Your task to perform on an android device: open app "Facebook" Image 0: 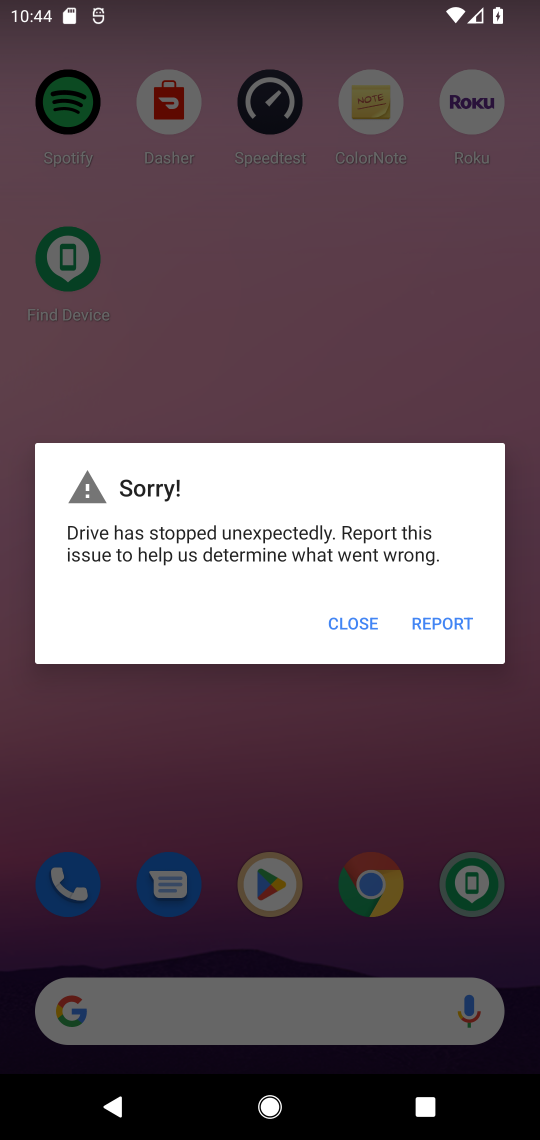
Step 0: press home button
Your task to perform on an android device: open app "Facebook" Image 1: 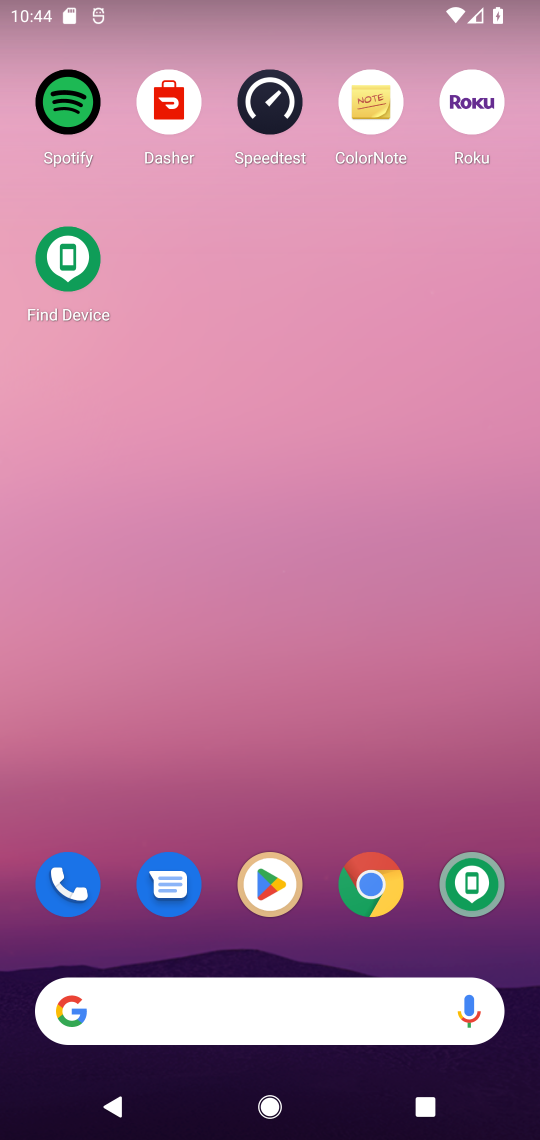
Step 1: click (265, 879)
Your task to perform on an android device: open app "Facebook" Image 2: 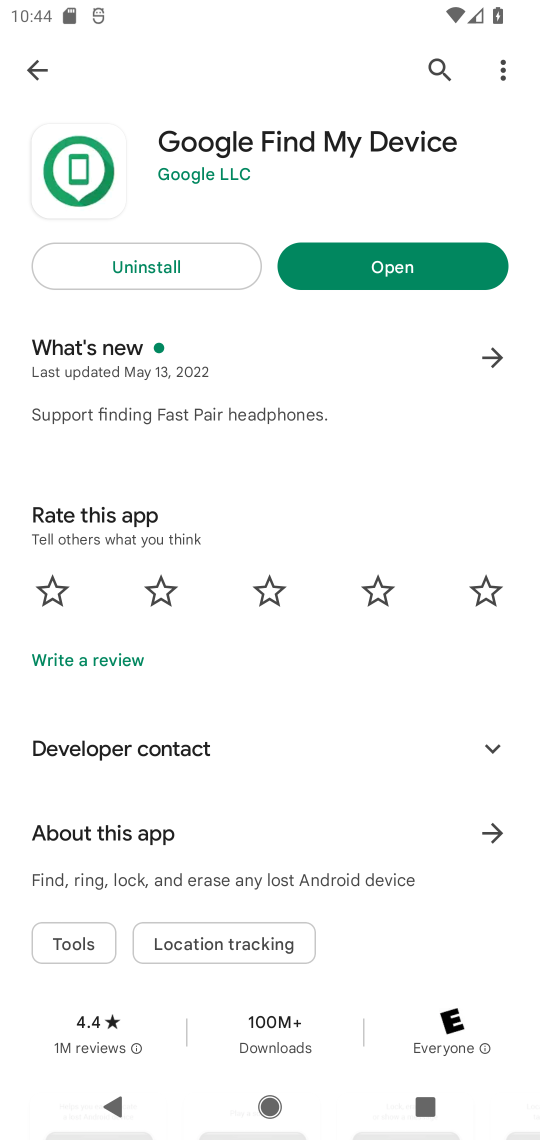
Step 2: click (436, 61)
Your task to perform on an android device: open app "Facebook" Image 3: 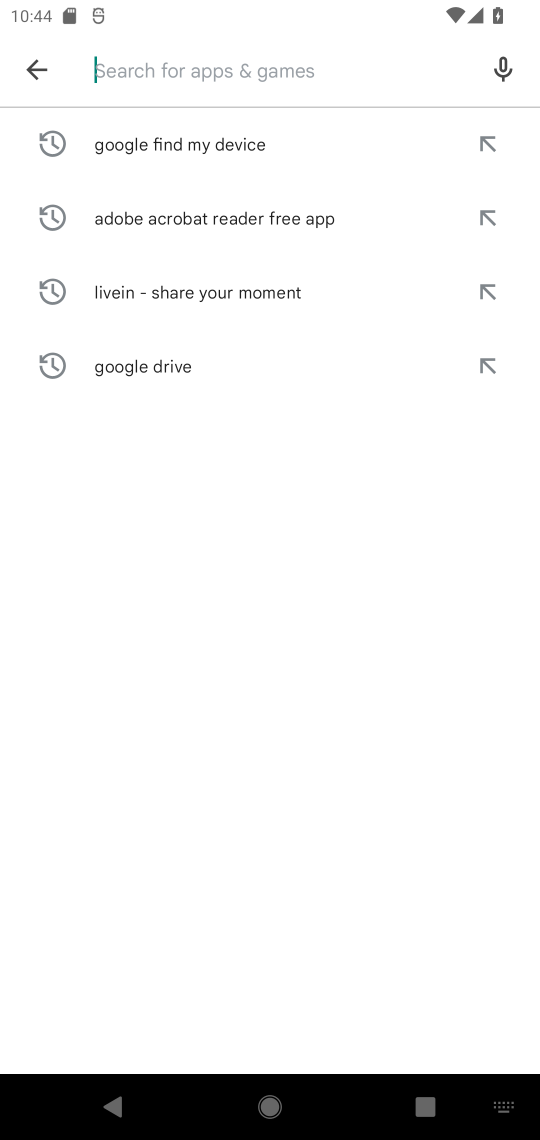
Step 3: type "Facebook"
Your task to perform on an android device: open app "Facebook" Image 4: 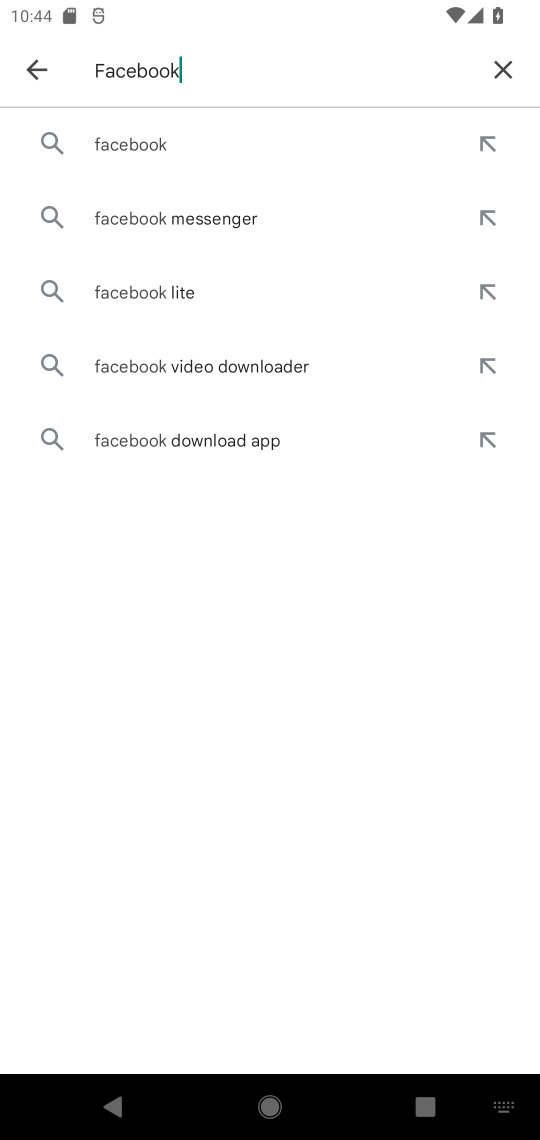
Step 4: click (132, 140)
Your task to perform on an android device: open app "Facebook" Image 5: 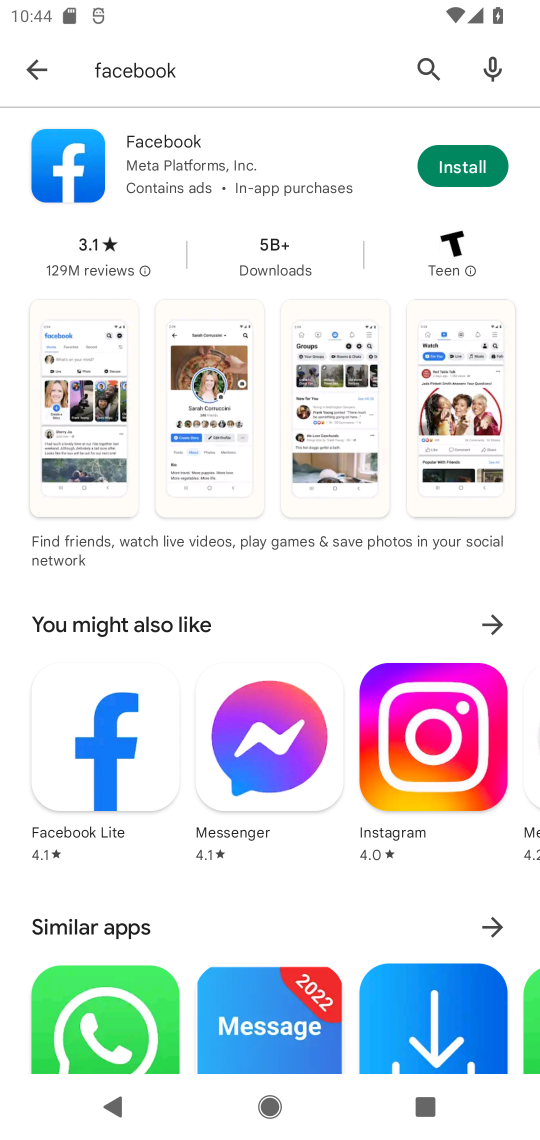
Step 5: task complete